Your task to perform on an android device: What's a good restaurant in New York? Image 0: 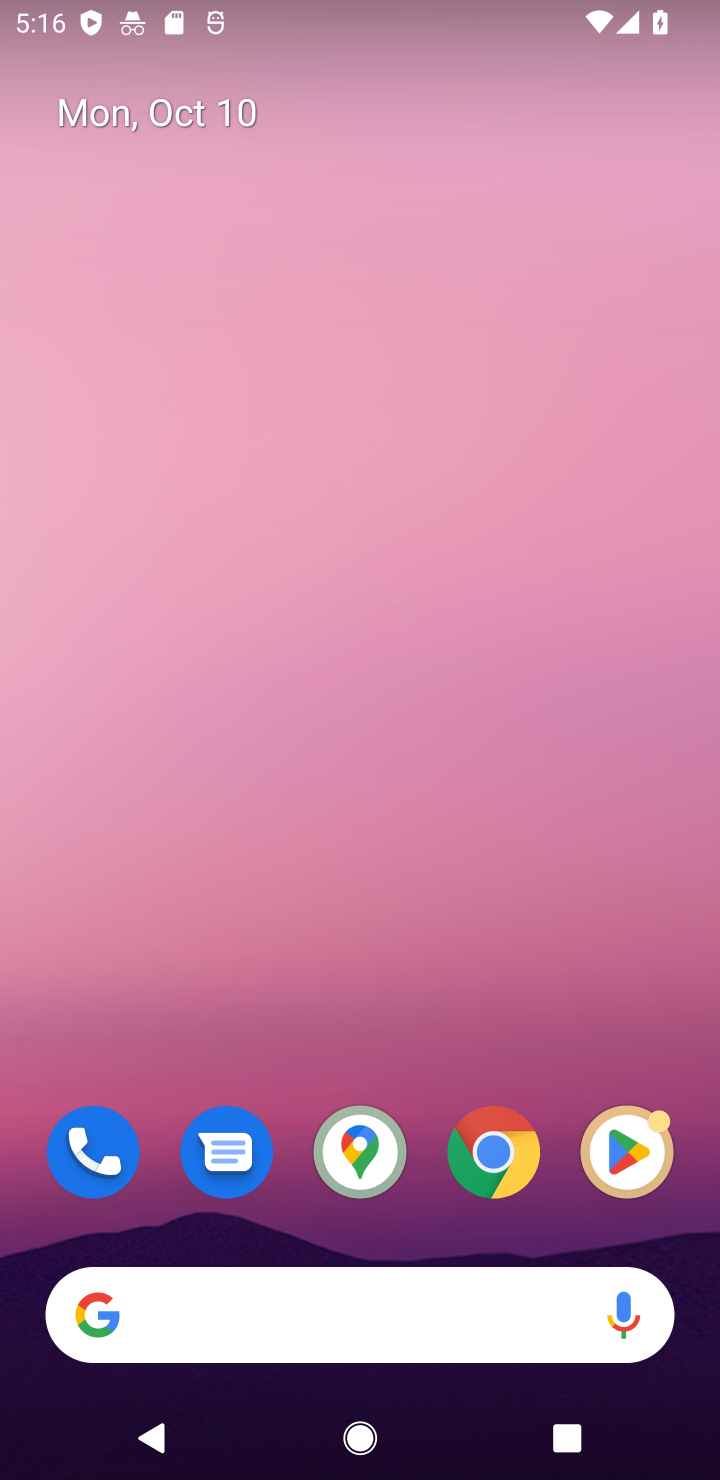
Step 0: click (490, 1152)
Your task to perform on an android device: What's a good restaurant in New York? Image 1: 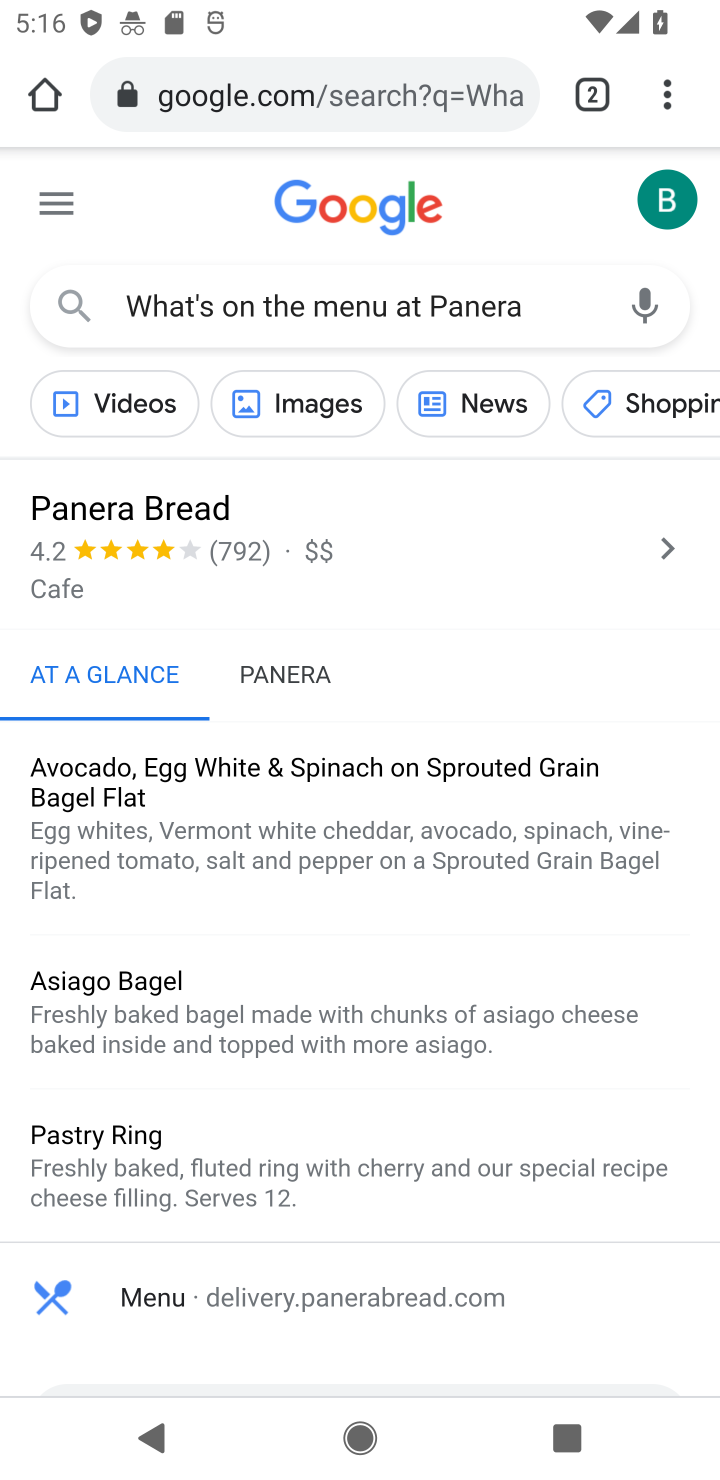
Step 1: click (382, 102)
Your task to perform on an android device: What's a good restaurant in New York? Image 2: 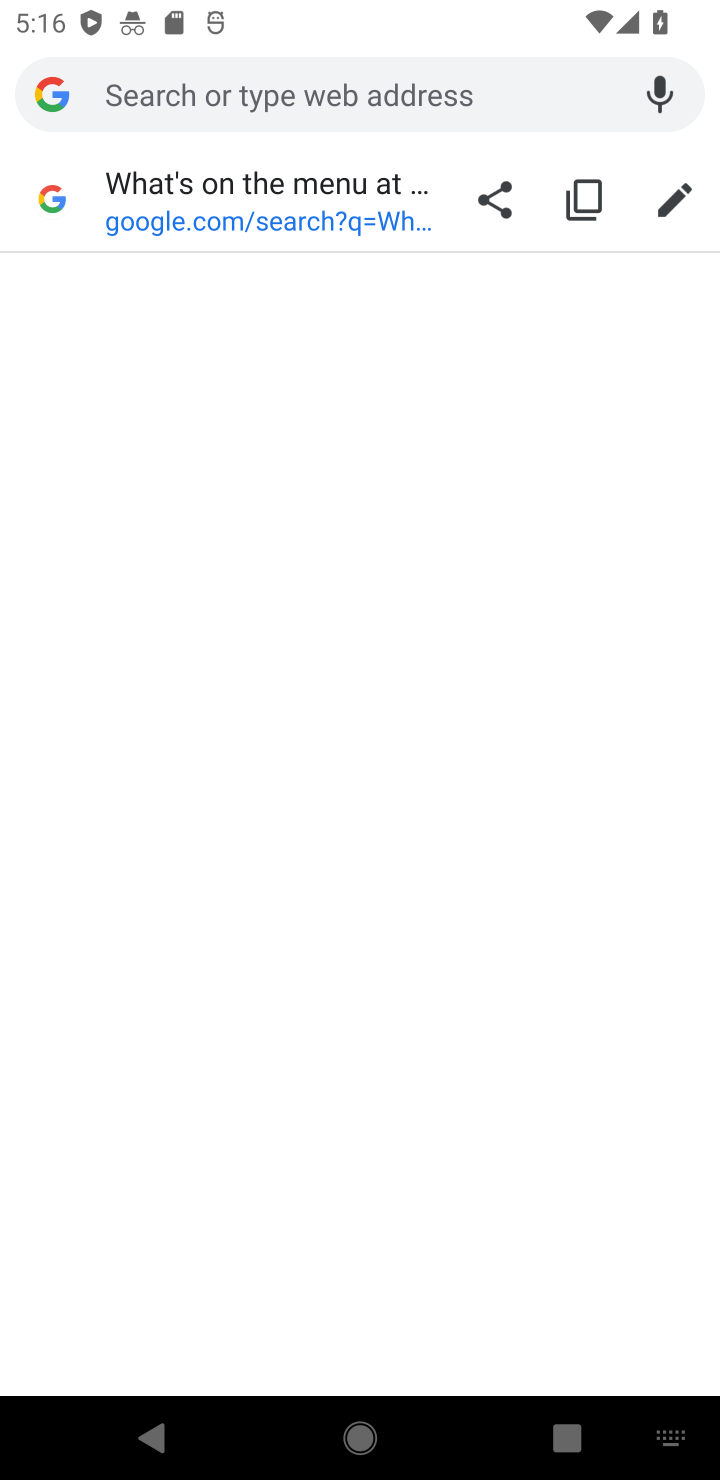
Step 2: type "What;s good restaurants in New York?"
Your task to perform on an android device: What's a good restaurant in New York? Image 3: 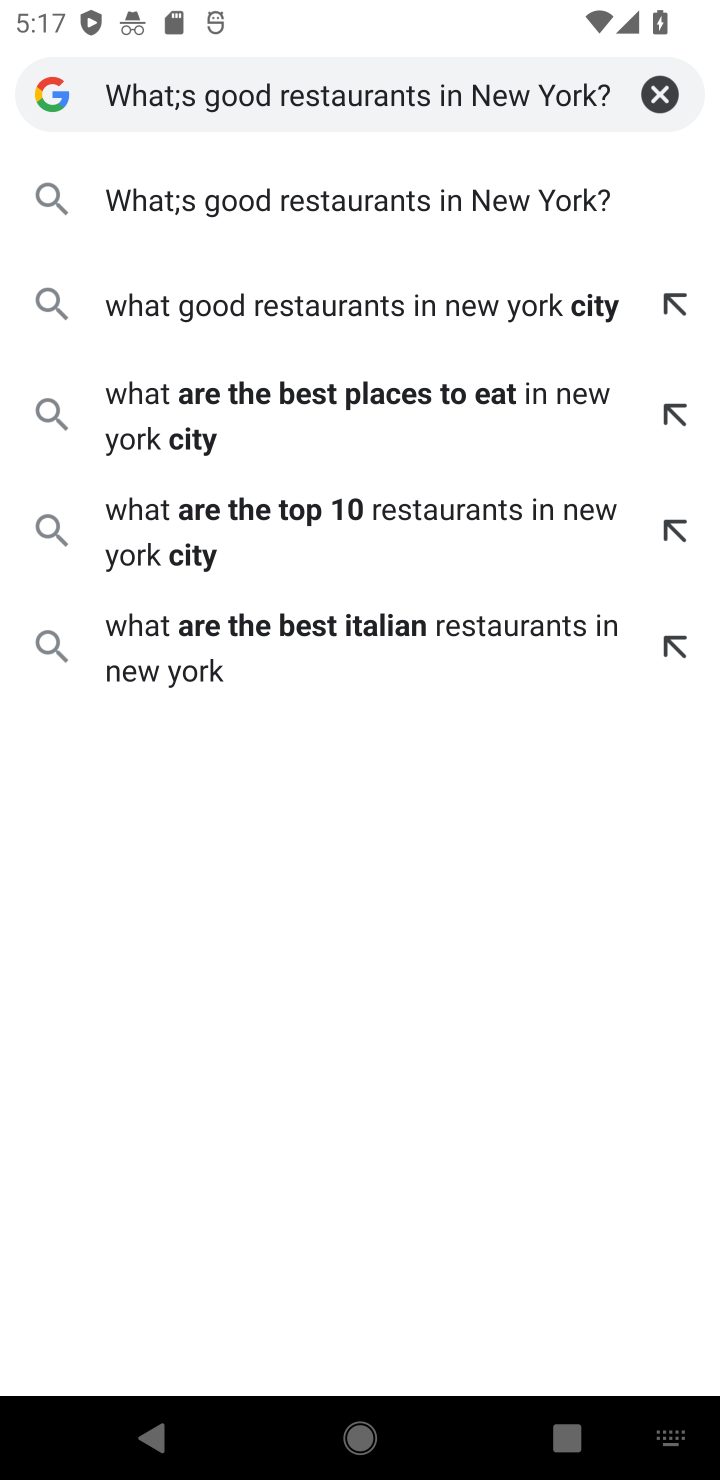
Step 3: click (285, 207)
Your task to perform on an android device: What's a good restaurant in New York? Image 4: 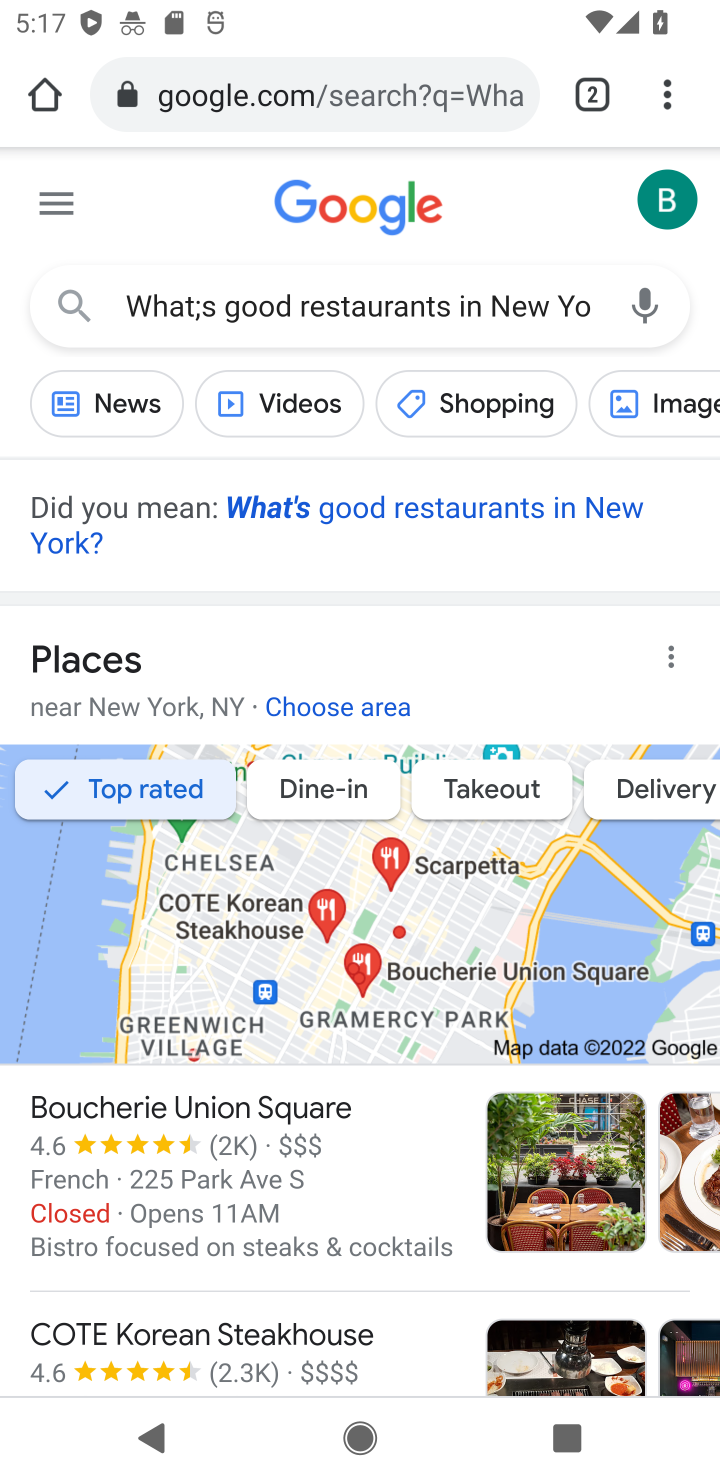
Step 4: task complete